Your task to perform on an android device: toggle notifications settings in the gmail app Image 0: 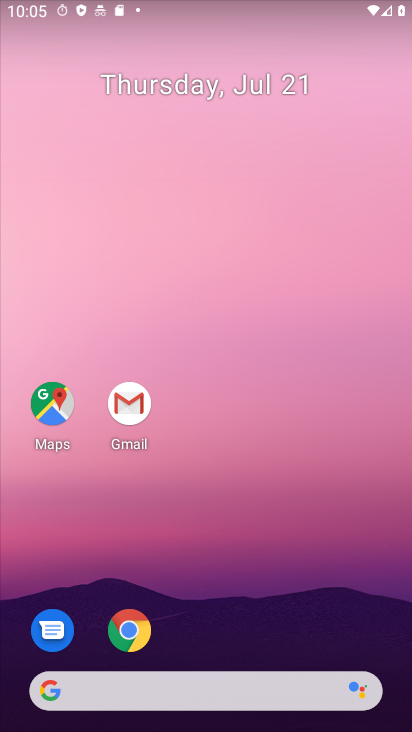
Step 0: drag from (249, 539) to (247, 184)
Your task to perform on an android device: toggle notifications settings in the gmail app Image 1: 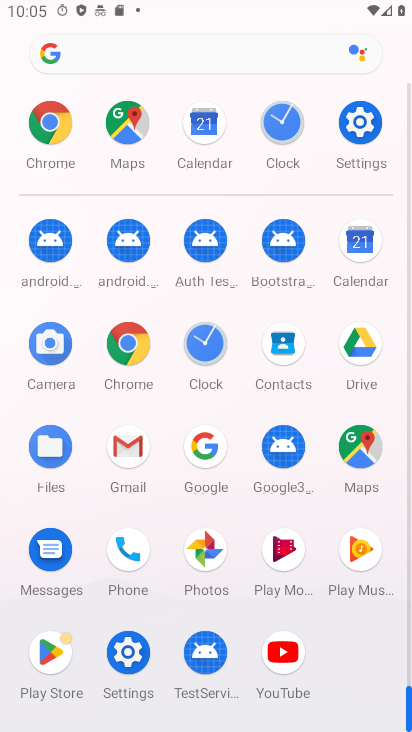
Step 1: click (110, 439)
Your task to perform on an android device: toggle notifications settings in the gmail app Image 2: 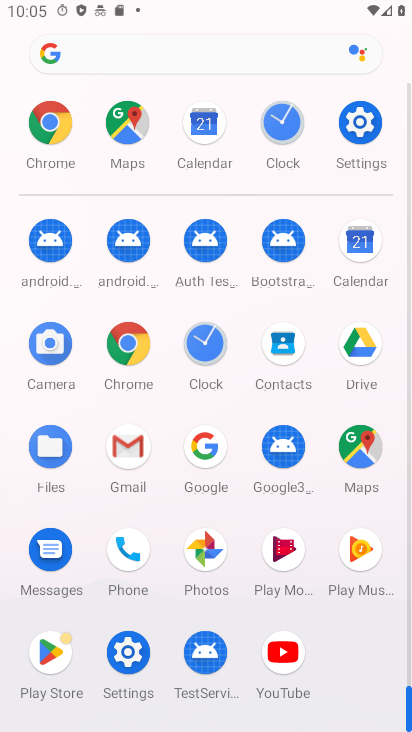
Step 2: click (141, 408)
Your task to perform on an android device: toggle notifications settings in the gmail app Image 3: 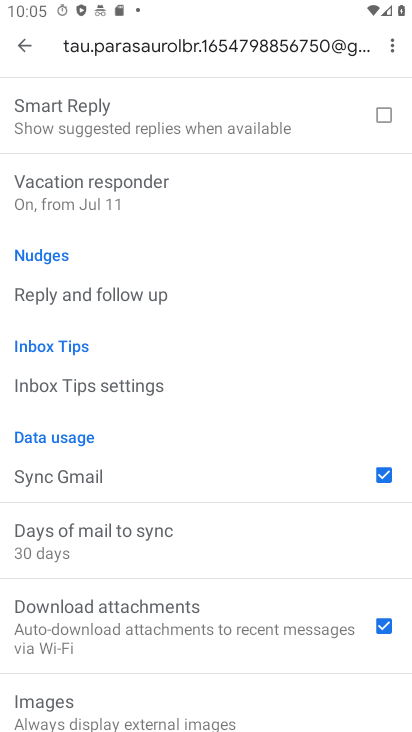
Step 3: drag from (96, 259) to (69, 443)
Your task to perform on an android device: toggle notifications settings in the gmail app Image 4: 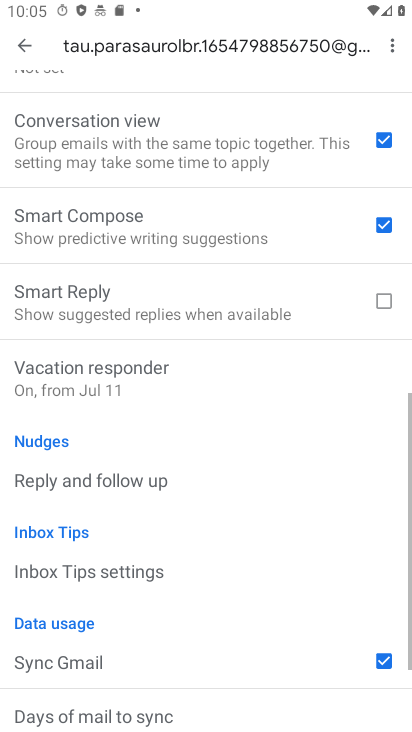
Step 4: drag from (134, 254) to (176, 661)
Your task to perform on an android device: toggle notifications settings in the gmail app Image 5: 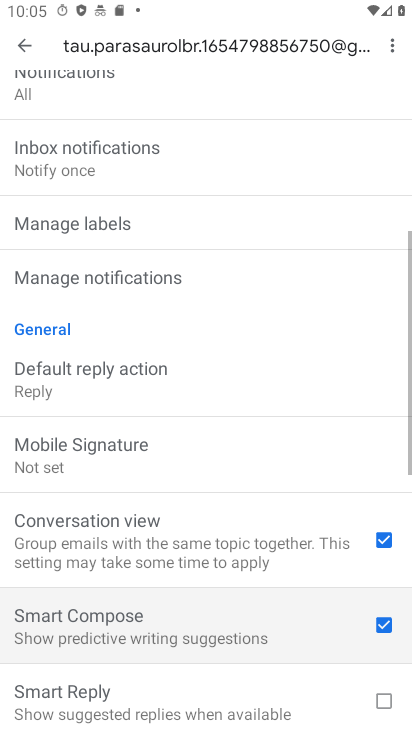
Step 5: drag from (175, 254) to (156, 634)
Your task to perform on an android device: toggle notifications settings in the gmail app Image 6: 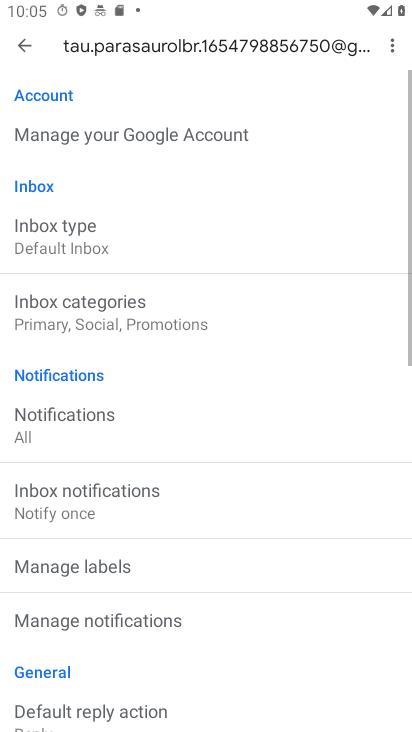
Step 6: drag from (146, 515) to (138, 683)
Your task to perform on an android device: toggle notifications settings in the gmail app Image 7: 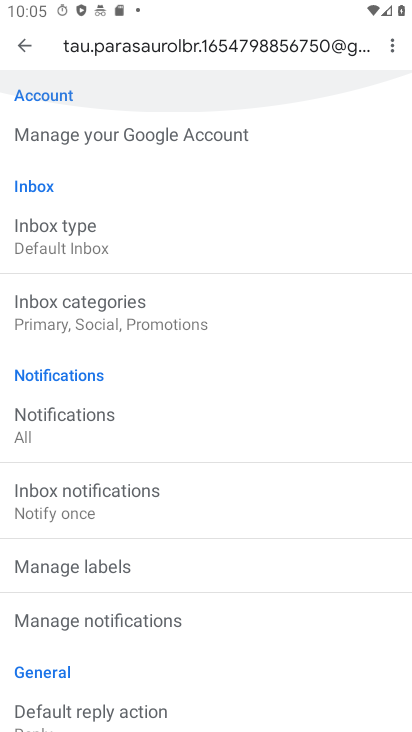
Step 7: drag from (87, 292) to (102, 724)
Your task to perform on an android device: toggle notifications settings in the gmail app Image 8: 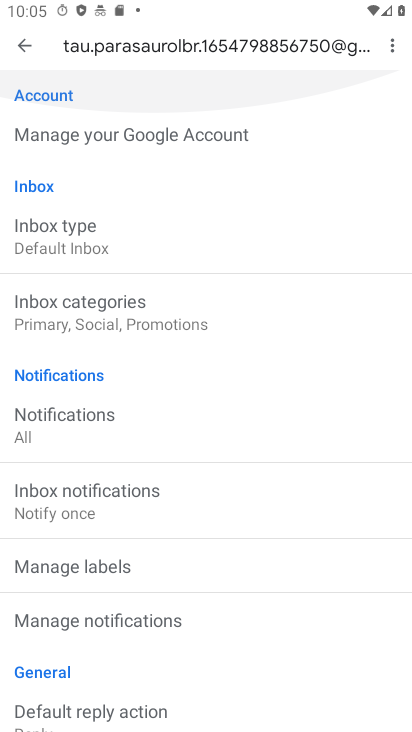
Step 8: drag from (95, 578) to (220, 702)
Your task to perform on an android device: toggle notifications settings in the gmail app Image 9: 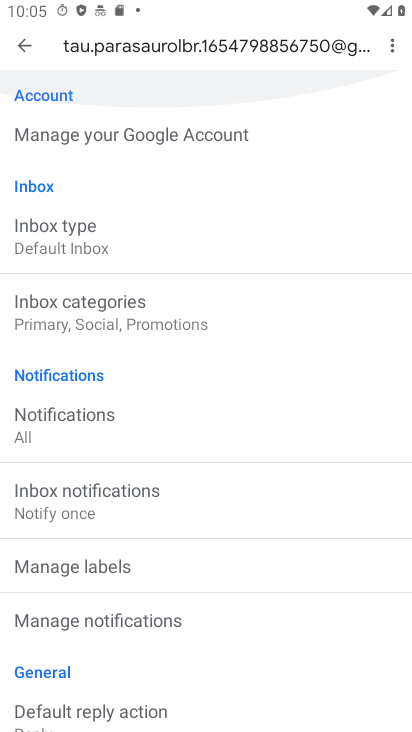
Step 9: drag from (271, 415) to (244, 730)
Your task to perform on an android device: toggle notifications settings in the gmail app Image 10: 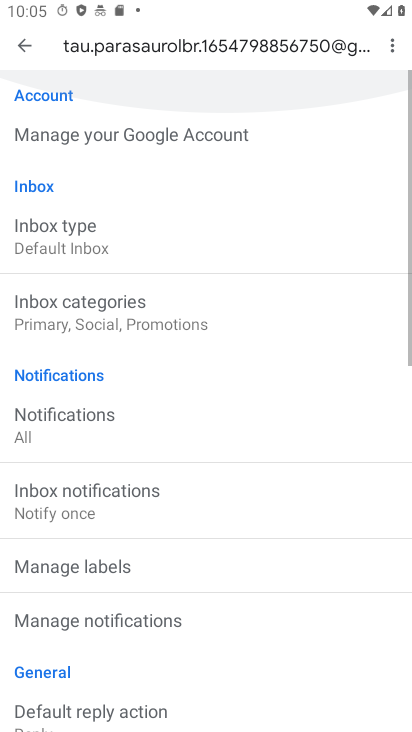
Step 10: drag from (219, 282) to (235, 516)
Your task to perform on an android device: toggle notifications settings in the gmail app Image 11: 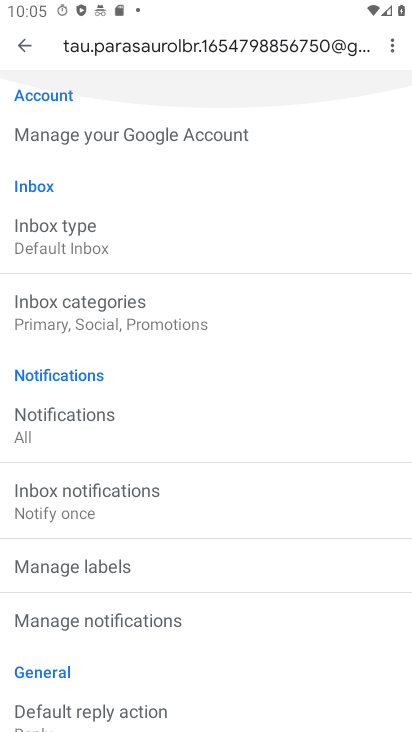
Step 11: drag from (246, 158) to (222, 504)
Your task to perform on an android device: toggle notifications settings in the gmail app Image 12: 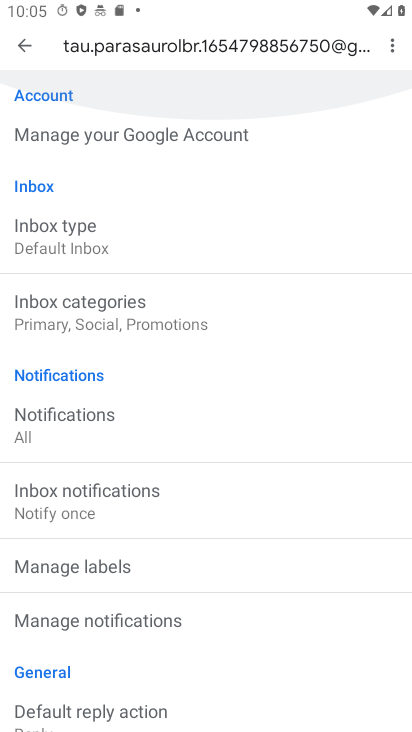
Step 12: drag from (170, 188) to (166, 439)
Your task to perform on an android device: toggle notifications settings in the gmail app Image 13: 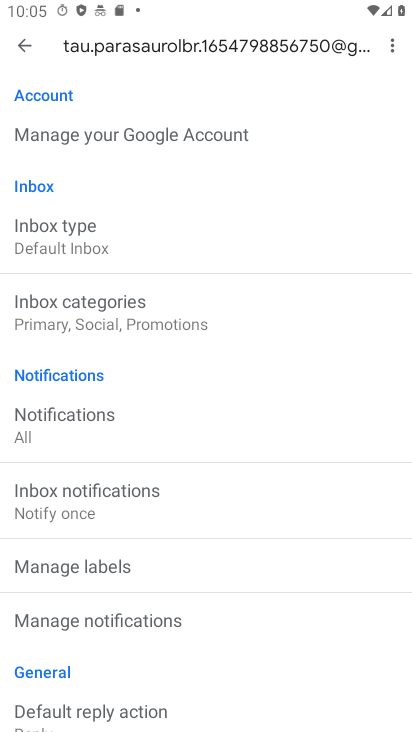
Step 13: click (56, 417)
Your task to perform on an android device: toggle notifications settings in the gmail app Image 14: 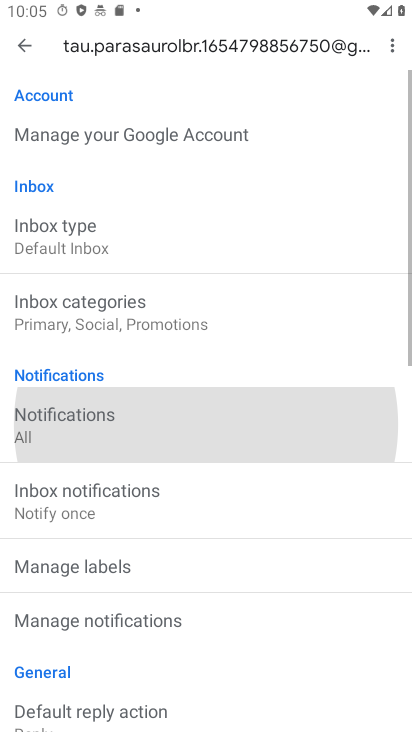
Step 14: click (64, 406)
Your task to perform on an android device: toggle notifications settings in the gmail app Image 15: 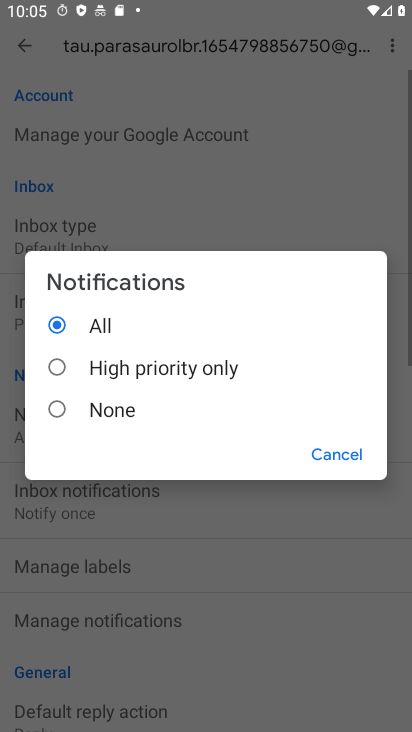
Step 15: click (49, 358)
Your task to perform on an android device: toggle notifications settings in the gmail app Image 16: 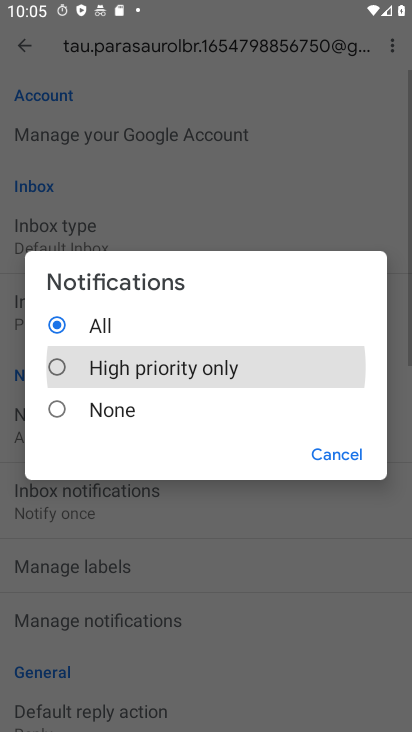
Step 16: click (51, 358)
Your task to perform on an android device: toggle notifications settings in the gmail app Image 17: 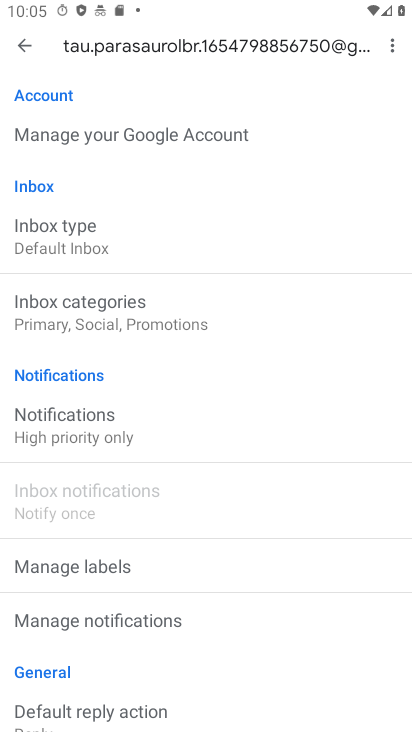
Step 17: task complete